Your task to perform on an android device: What's on my calendar today? Image 0: 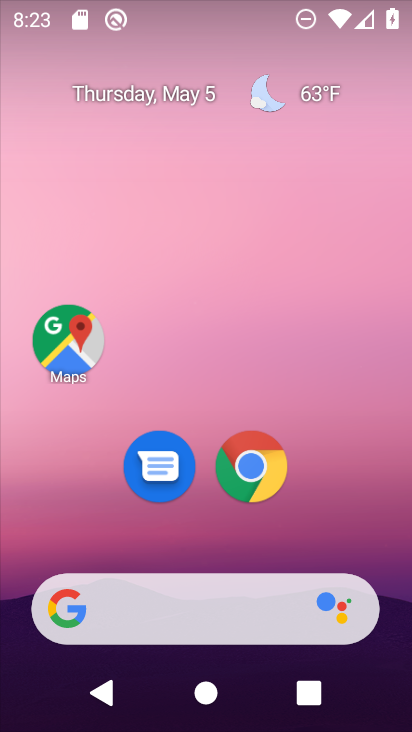
Step 0: drag from (240, 616) to (261, 191)
Your task to perform on an android device: What's on my calendar today? Image 1: 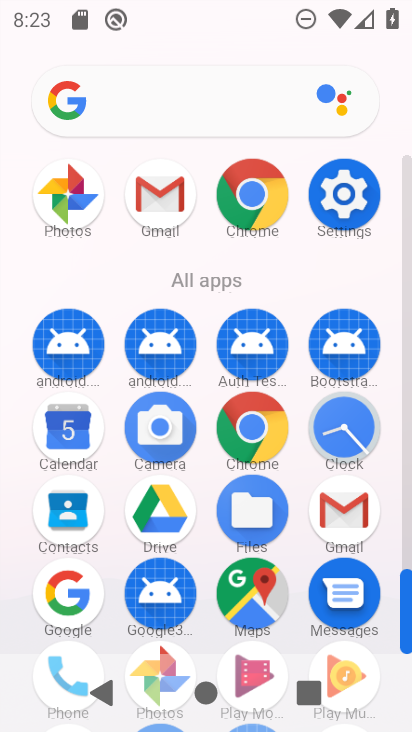
Step 1: click (67, 438)
Your task to perform on an android device: What's on my calendar today? Image 2: 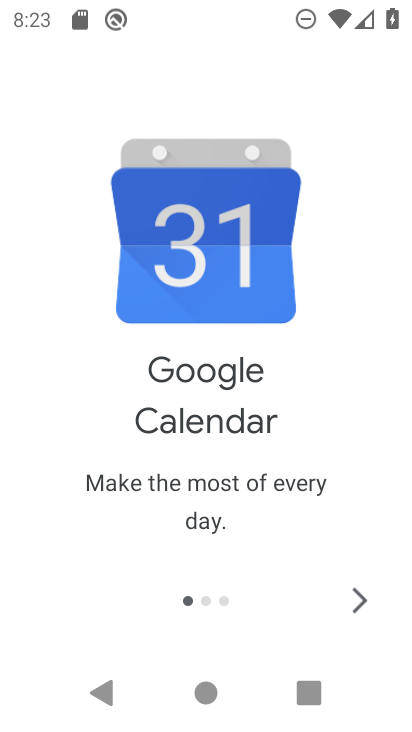
Step 2: click (361, 606)
Your task to perform on an android device: What's on my calendar today? Image 3: 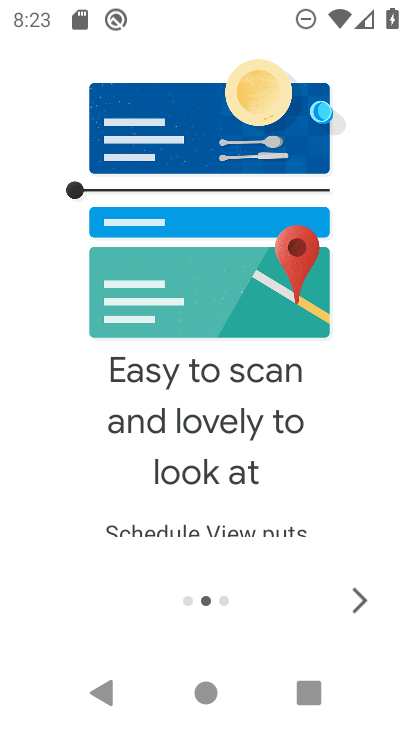
Step 3: click (361, 606)
Your task to perform on an android device: What's on my calendar today? Image 4: 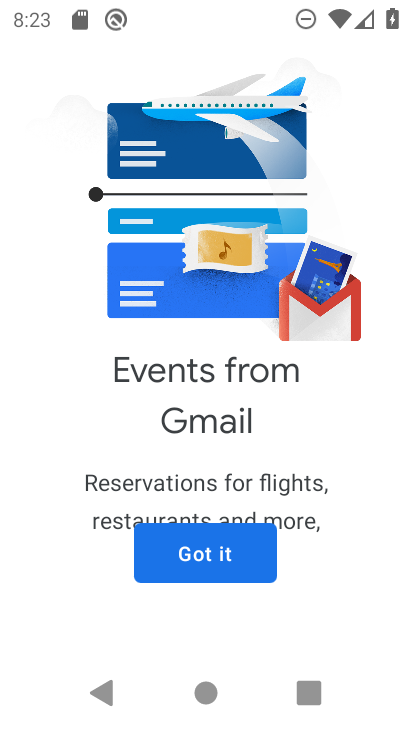
Step 4: click (214, 549)
Your task to perform on an android device: What's on my calendar today? Image 5: 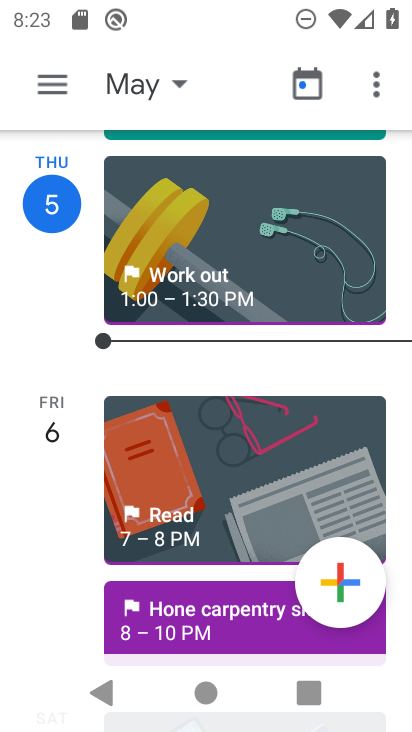
Step 5: click (70, 202)
Your task to perform on an android device: What's on my calendar today? Image 6: 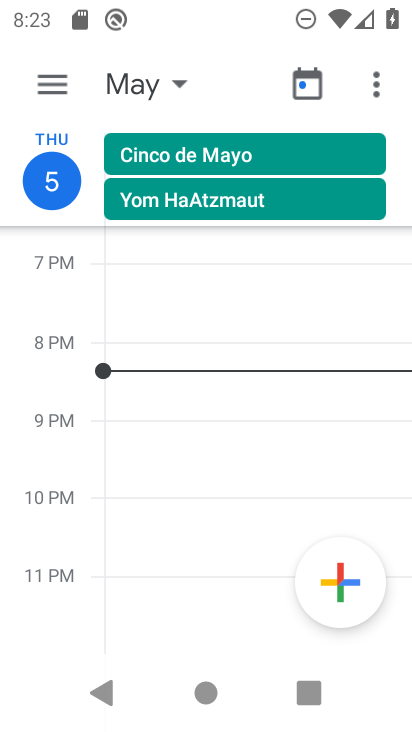
Step 6: task complete